Your task to perform on an android device: turn on notifications settings in the gmail app Image 0: 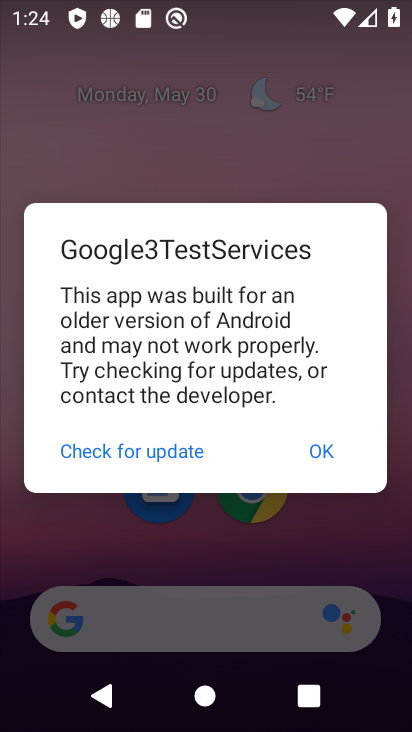
Step 0: press home button
Your task to perform on an android device: turn on notifications settings in the gmail app Image 1: 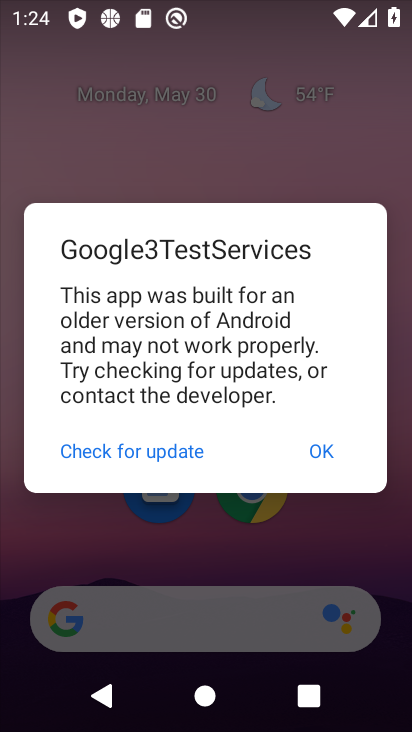
Step 1: click (327, 446)
Your task to perform on an android device: turn on notifications settings in the gmail app Image 2: 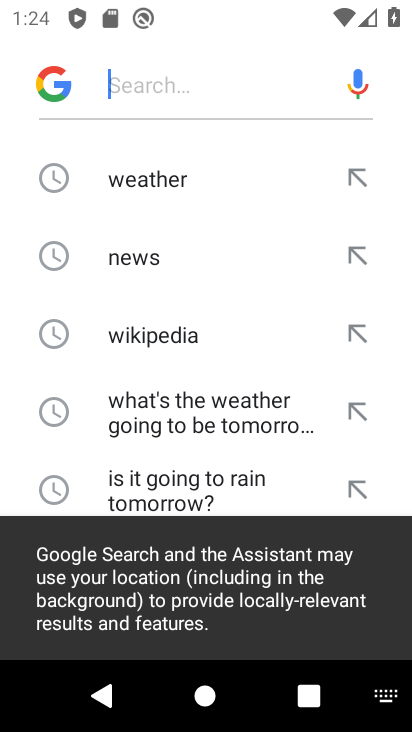
Step 2: press home button
Your task to perform on an android device: turn on notifications settings in the gmail app Image 3: 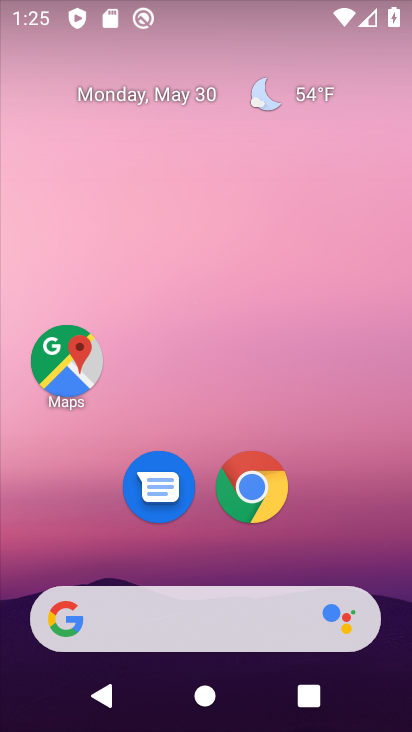
Step 3: drag from (58, 534) to (193, 87)
Your task to perform on an android device: turn on notifications settings in the gmail app Image 4: 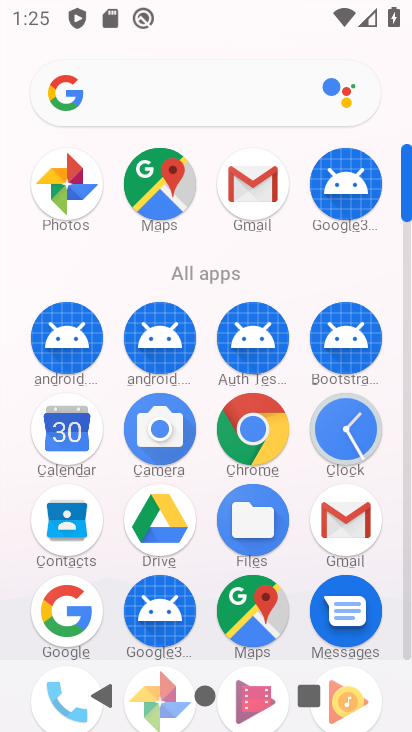
Step 4: drag from (135, 596) to (186, 429)
Your task to perform on an android device: turn on notifications settings in the gmail app Image 5: 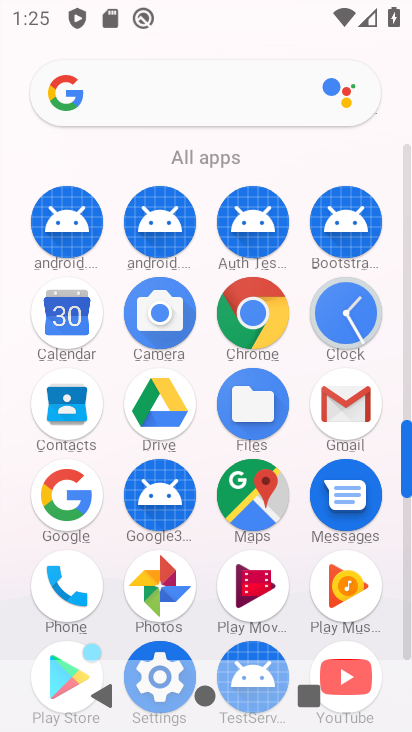
Step 5: click (348, 429)
Your task to perform on an android device: turn on notifications settings in the gmail app Image 6: 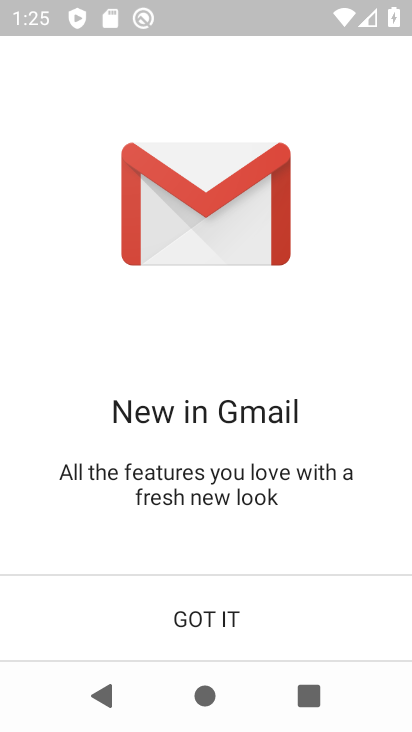
Step 6: click (236, 624)
Your task to perform on an android device: turn on notifications settings in the gmail app Image 7: 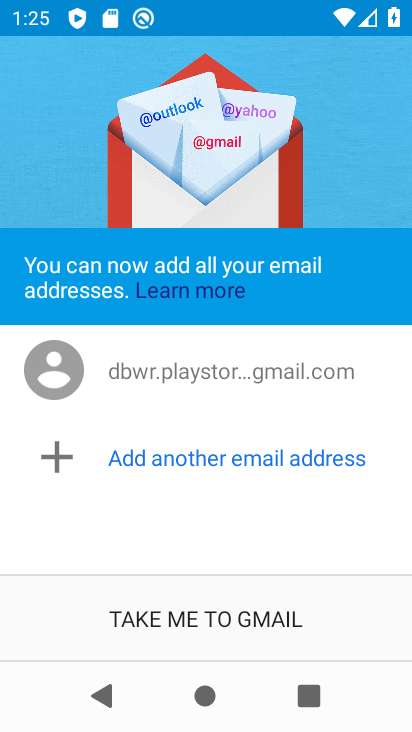
Step 7: click (229, 629)
Your task to perform on an android device: turn on notifications settings in the gmail app Image 8: 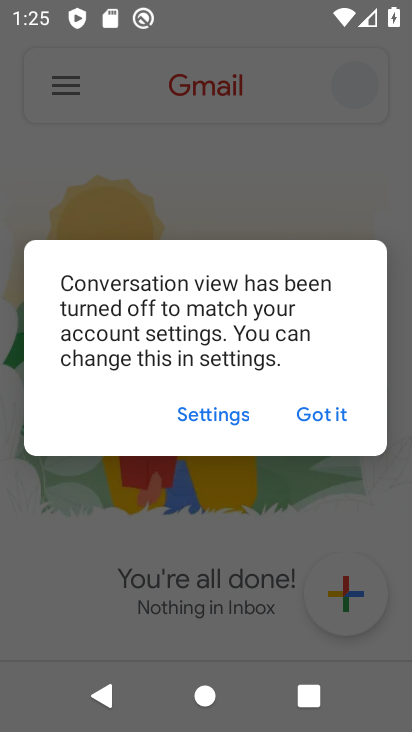
Step 8: click (336, 431)
Your task to perform on an android device: turn on notifications settings in the gmail app Image 9: 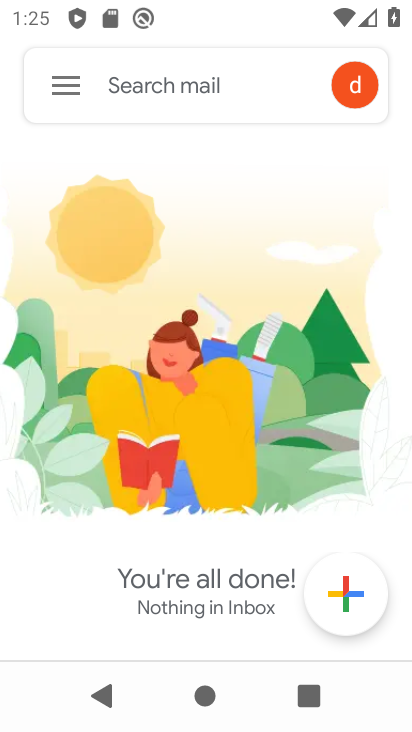
Step 9: click (54, 79)
Your task to perform on an android device: turn on notifications settings in the gmail app Image 10: 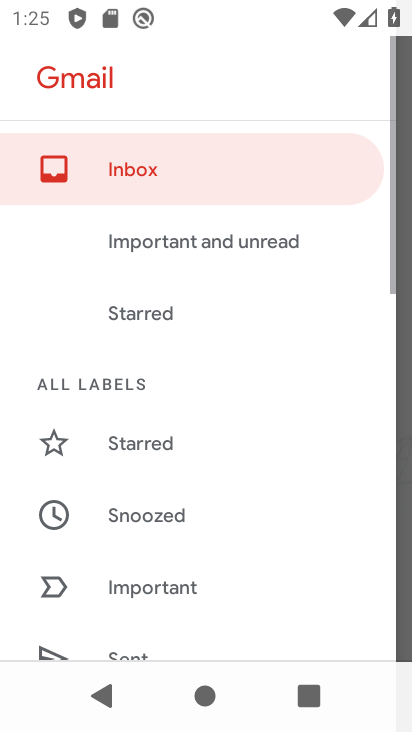
Step 10: drag from (118, 538) to (285, 77)
Your task to perform on an android device: turn on notifications settings in the gmail app Image 11: 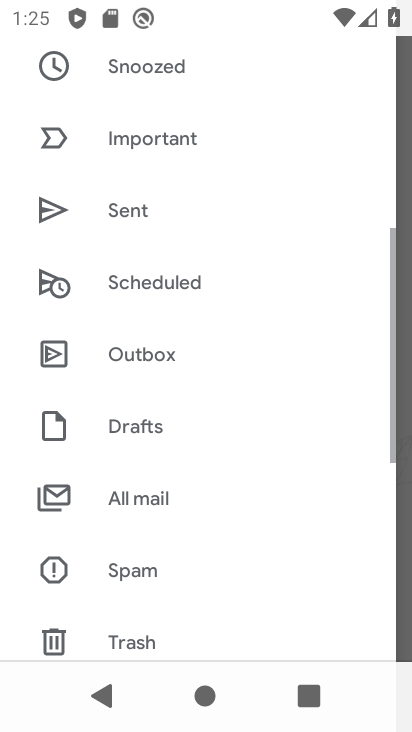
Step 11: drag from (145, 536) to (267, 122)
Your task to perform on an android device: turn on notifications settings in the gmail app Image 12: 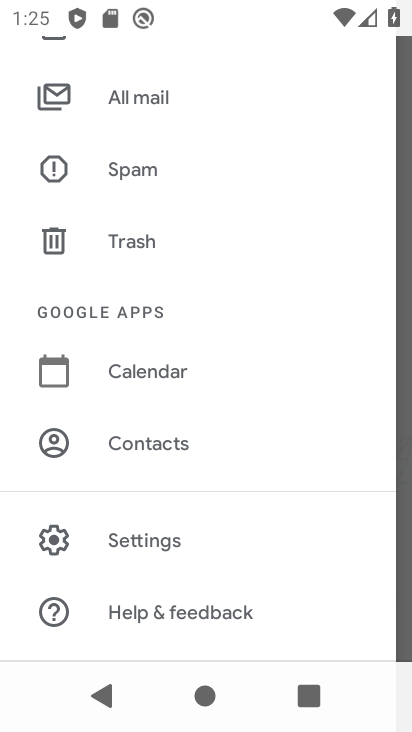
Step 12: click (151, 546)
Your task to perform on an android device: turn on notifications settings in the gmail app Image 13: 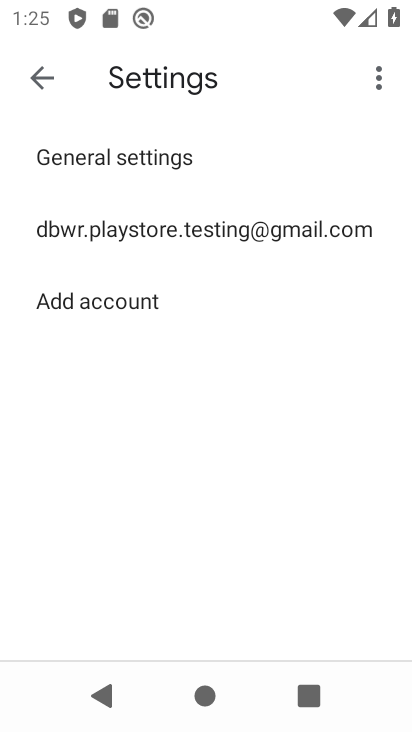
Step 13: click (278, 245)
Your task to perform on an android device: turn on notifications settings in the gmail app Image 14: 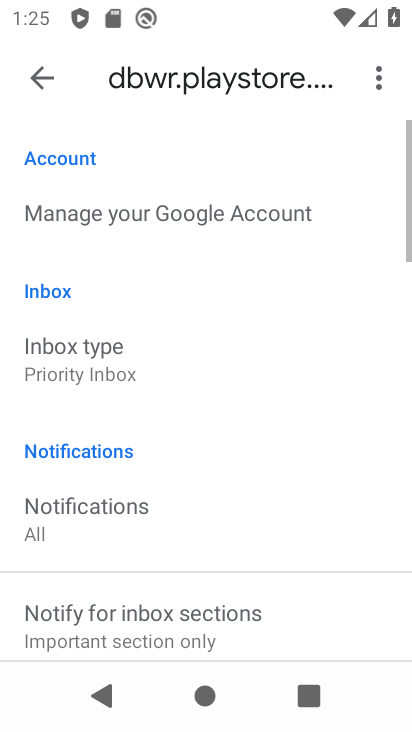
Step 14: drag from (174, 526) to (290, 123)
Your task to perform on an android device: turn on notifications settings in the gmail app Image 15: 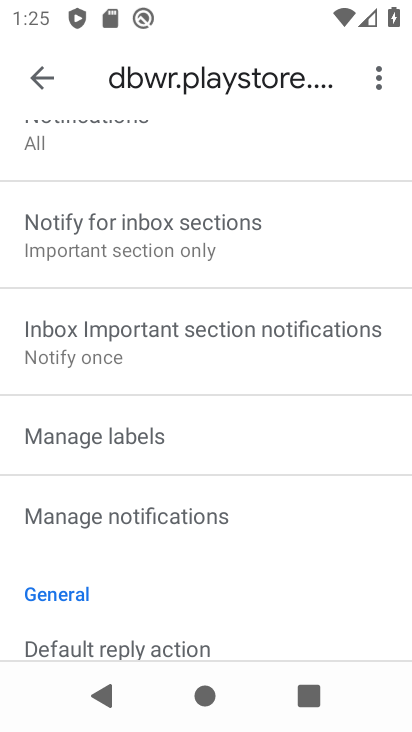
Step 15: click (247, 522)
Your task to perform on an android device: turn on notifications settings in the gmail app Image 16: 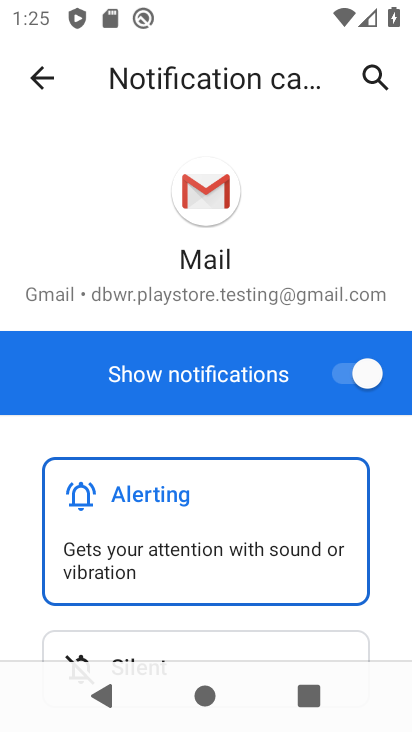
Step 16: task complete